Your task to perform on an android device: turn pop-ups off in chrome Image 0: 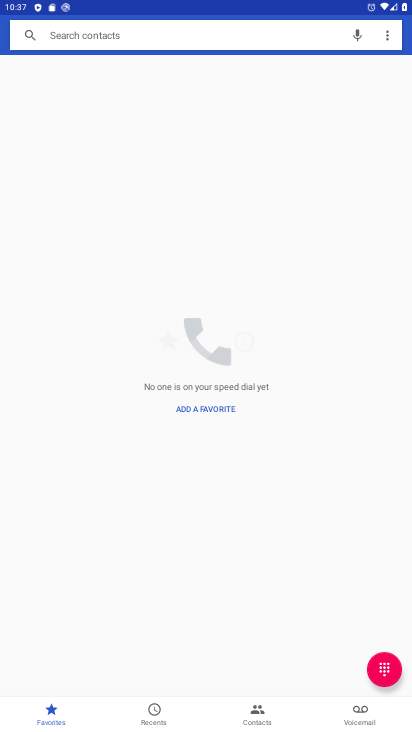
Step 0: press home button
Your task to perform on an android device: turn pop-ups off in chrome Image 1: 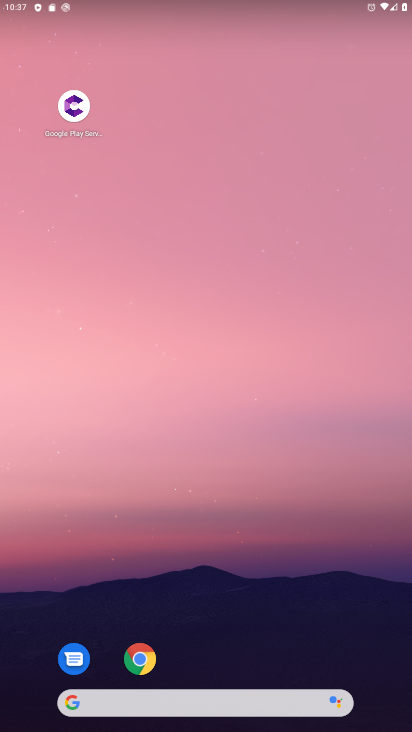
Step 1: click (142, 667)
Your task to perform on an android device: turn pop-ups off in chrome Image 2: 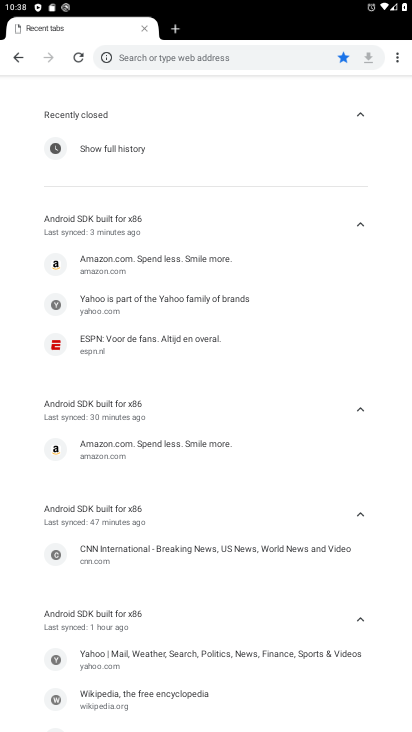
Step 2: click (397, 55)
Your task to perform on an android device: turn pop-ups off in chrome Image 3: 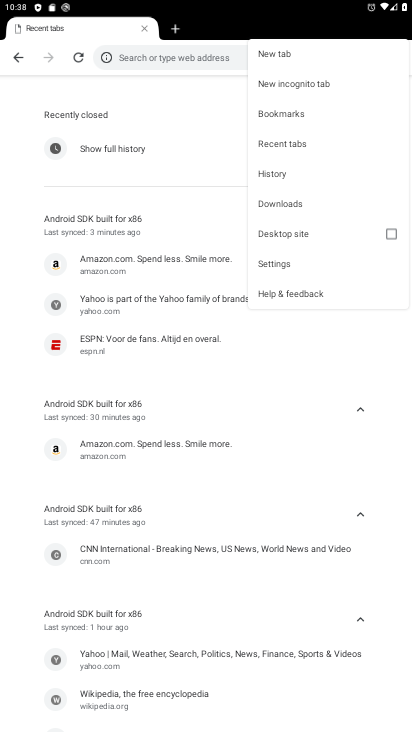
Step 3: click (290, 264)
Your task to perform on an android device: turn pop-ups off in chrome Image 4: 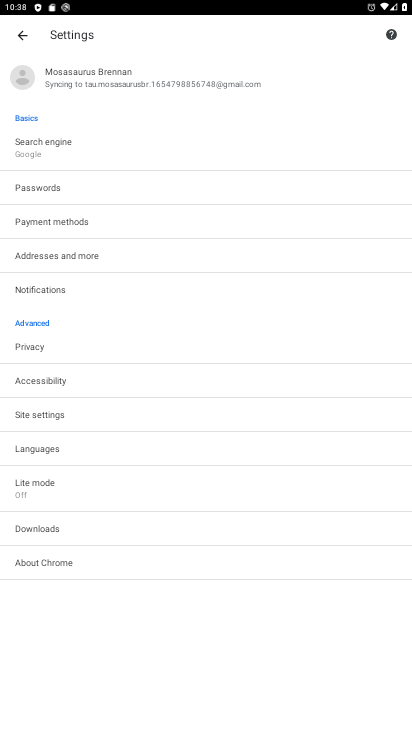
Step 4: click (110, 407)
Your task to perform on an android device: turn pop-ups off in chrome Image 5: 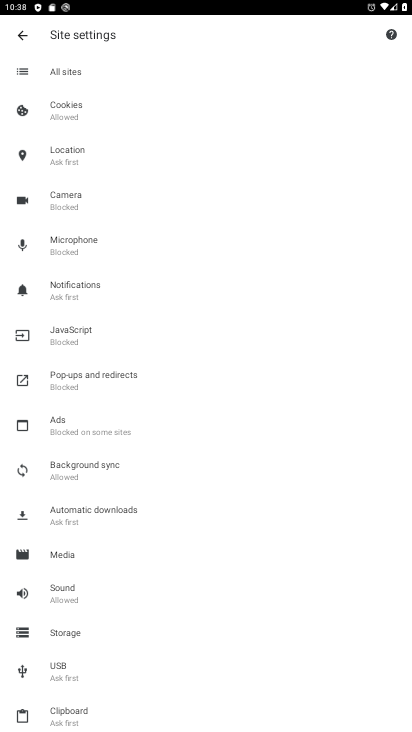
Step 5: click (105, 380)
Your task to perform on an android device: turn pop-ups off in chrome Image 6: 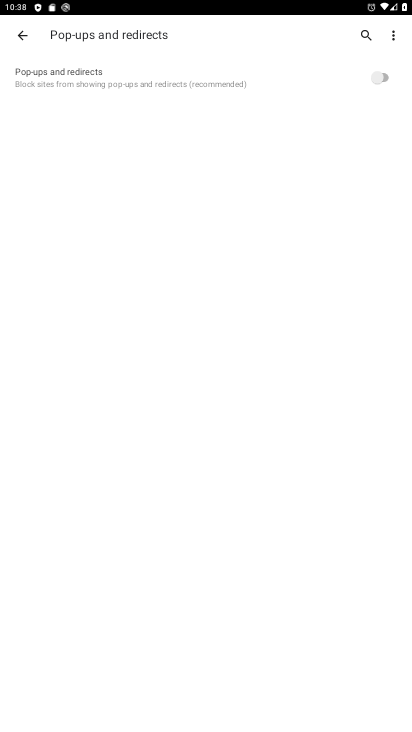
Step 6: task complete